Your task to perform on an android device: Turn on the flashlight Image 0: 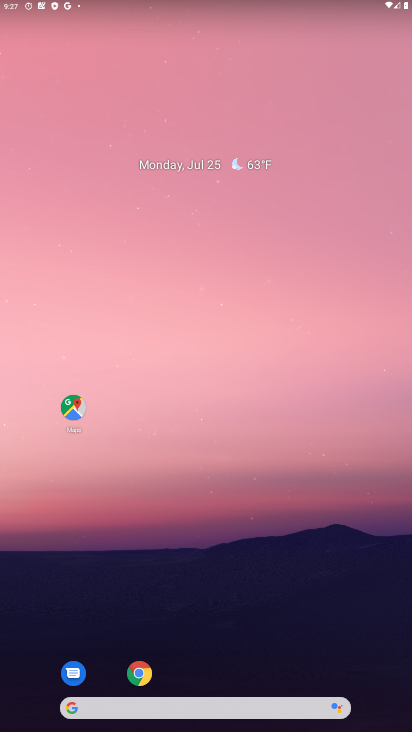
Step 0: drag from (189, 656) to (285, 60)
Your task to perform on an android device: Turn on the flashlight Image 1: 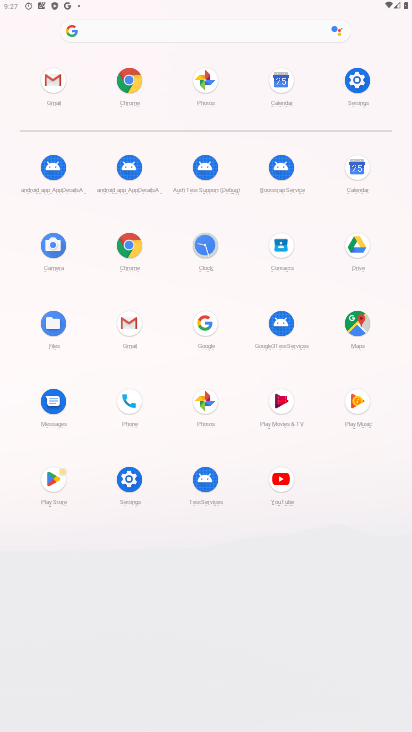
Step 1: click (130, 250)
Your task to perform on an android device: Turn on the flashlight Image 2: 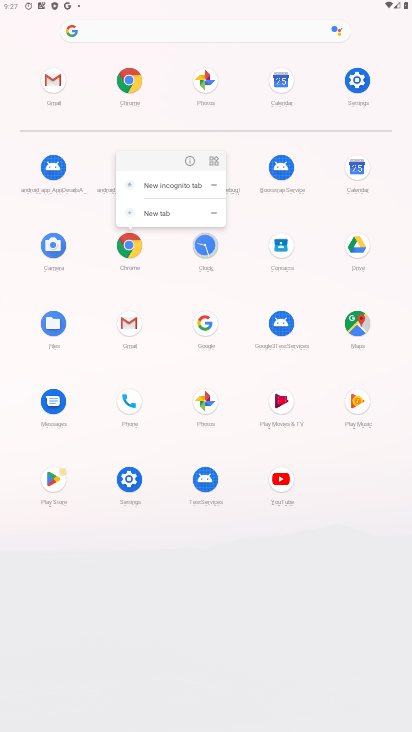
Step 2: click (124, 485)
Your task to perform on an android device: Turn on the flashlight Image 3: 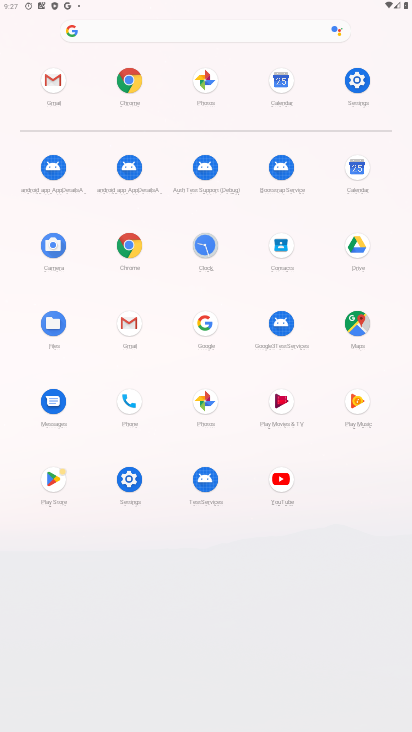
Step 3: click (128, 482)
Your task to perform on an android device: Turn on the flashlight Image 4: 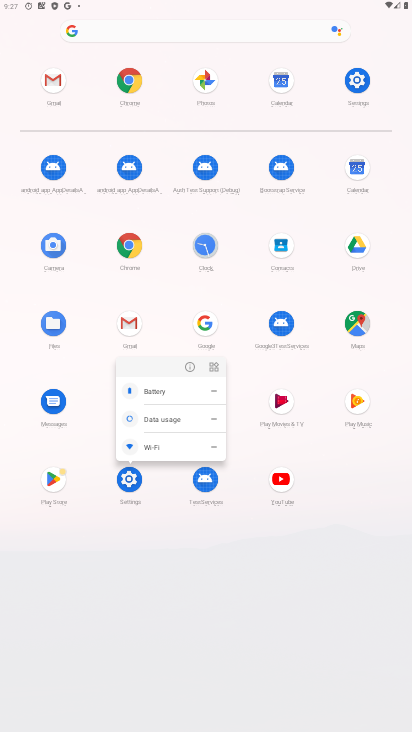
Step 4: click (187, 371)
Your task to perform on an android device: Turn on the flashlight Image 5: 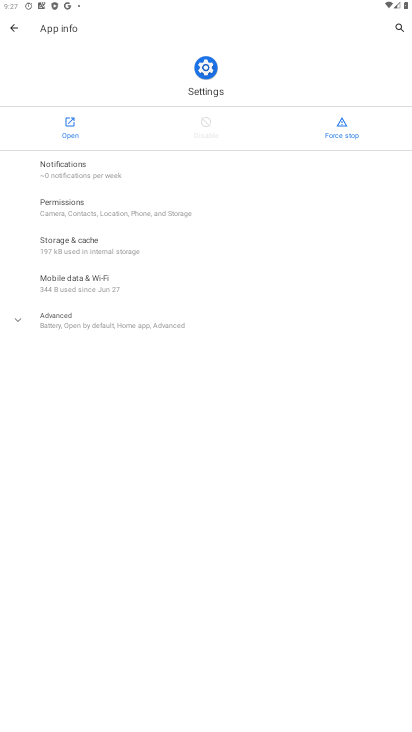
Step 5: click (76, 124)
Your task to perform on an android device: Turn on the flashlight Image 6: 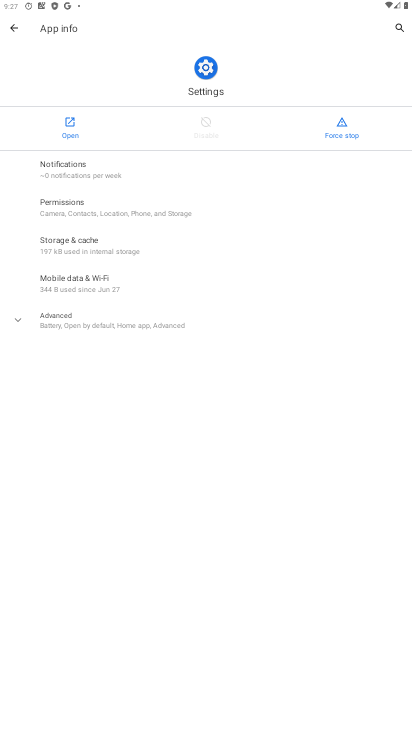
Step 6: click (75, 124)
Your task to perform on an android device: Turn on the flashlight Image 7: 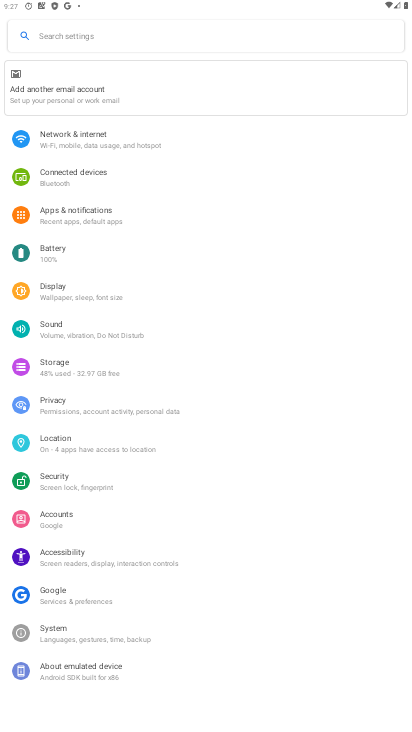
Step 7: click (61, 31)
Your task to perform on an android device: Turn on the flashlight Image 8: 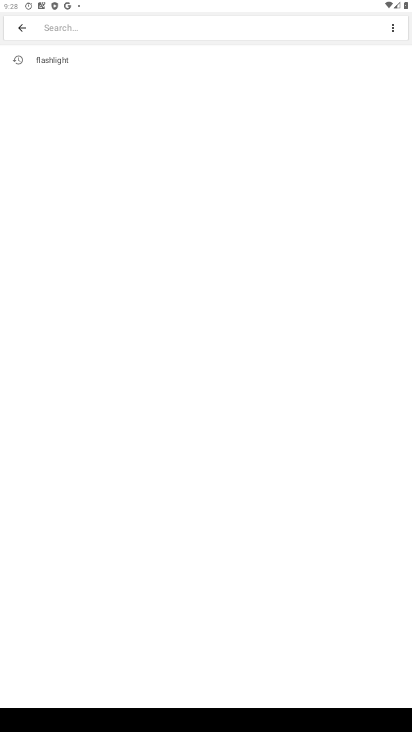
Step 8: click (50, 63)
Your task to perform on an android device: Turn on the flashlight Image 9: 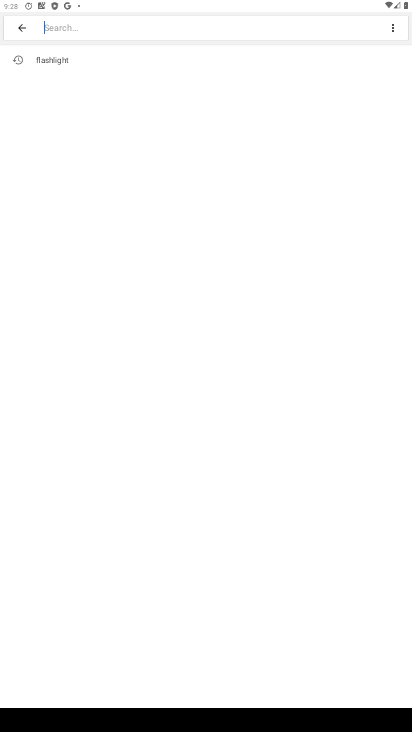
Step 9: click (50, 63)
Your task to perform on an android device: Turn on the flashlight Image 10: 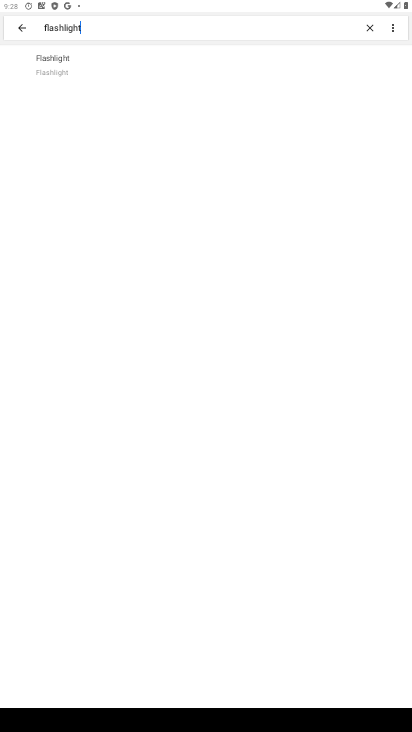
Step 10: task complete